Your task to perform on an android device: Turn on the flashlight Image 0: 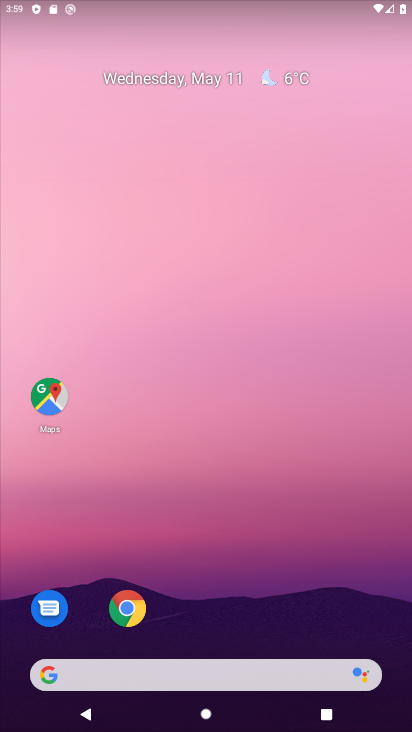
Step 0: drag from (226, 718) to (226, 219)
Your task to perform on an android device: Turn on the flashlight Image 1: 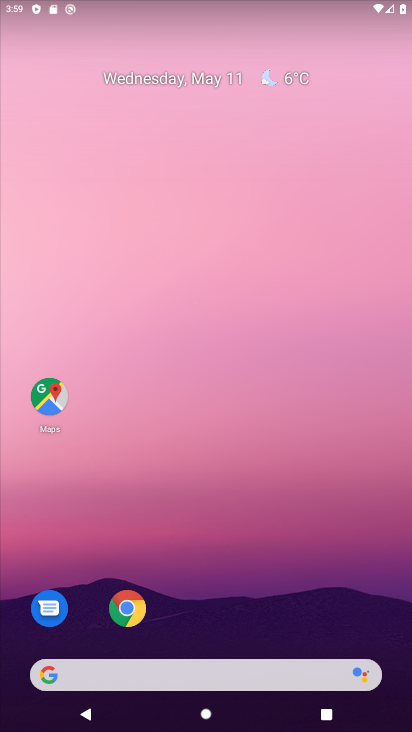
Step 1: drag from (222, 685) to (238, 85)
Your task to perform on an android device: Turn on the flashlight Image 2: 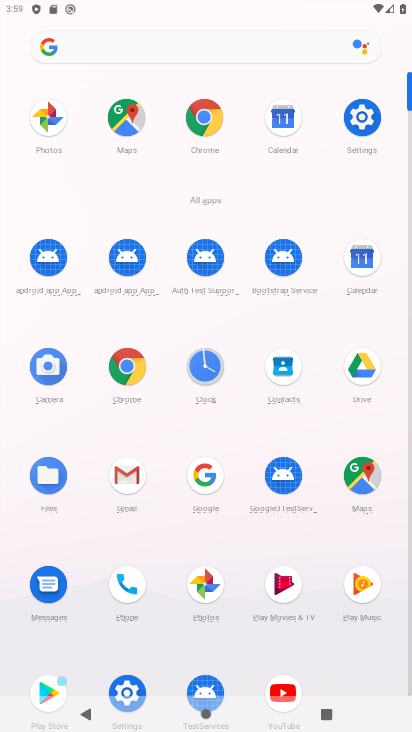
Step 2: click (368, 115)
Your task to perform on an android device: Turn on the flashlight Image 3: 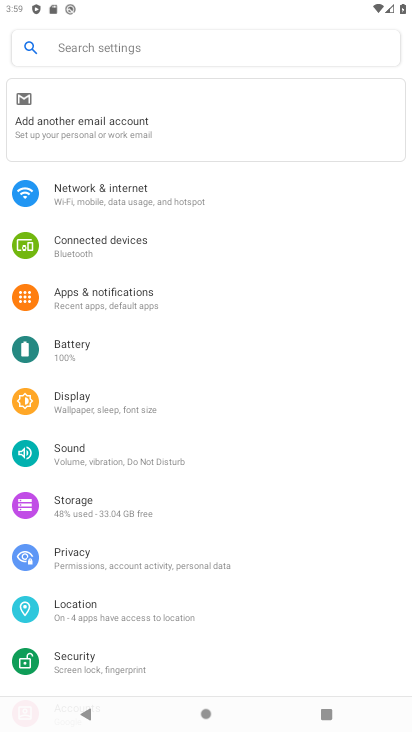
Step 3: task complete